Your task to perform on an android device: Open my contact list Image 0: 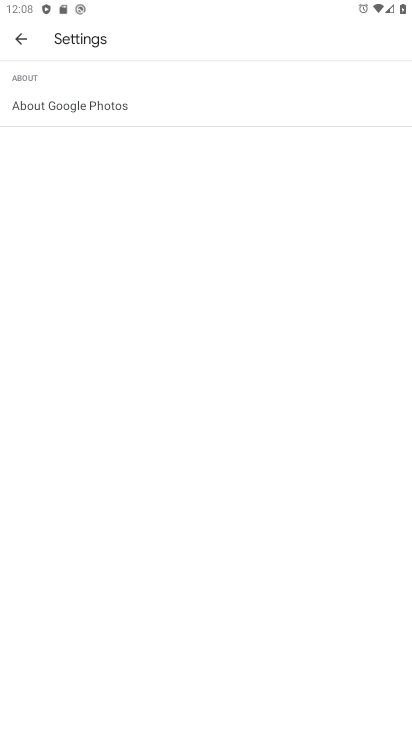
Step 0: press home button
Your task to perform on an android device: Open my contact list Image 1: 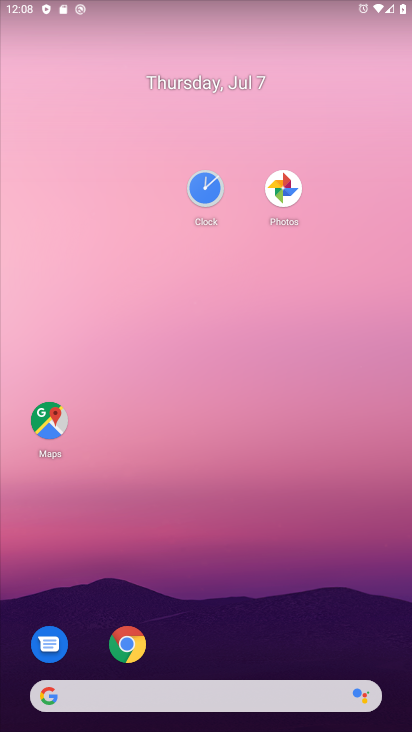
Step 1: drag from (315, 668) to (272, 111)
Your task to perform on an android device: Open my contact list Image 2: 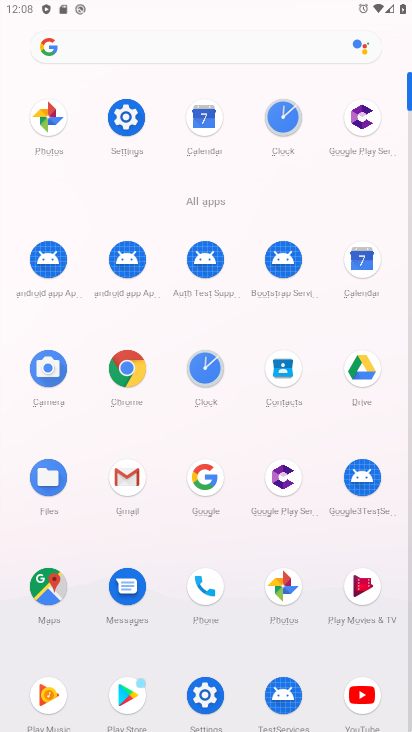
Step 2: click (283, 370)
Your task to perform on an android device: Open my contact list Image 3: 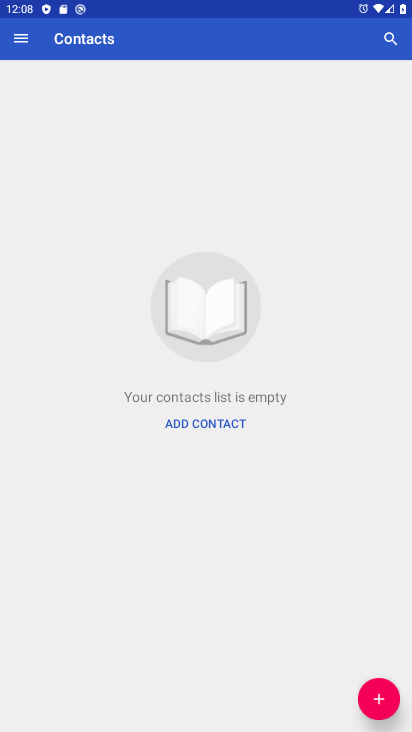
Step 3: click (382, 703)
Your task to perform on an android device: Open my contact list Image 4: 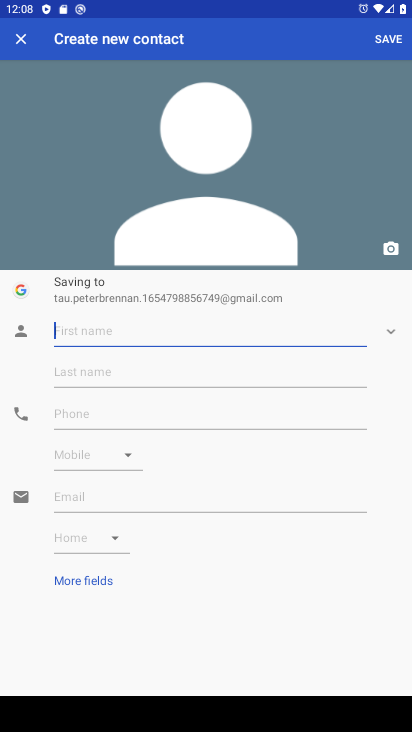
Step 4: type "tipe"
Your task to perform on an android device: Open my contact list Image 5: 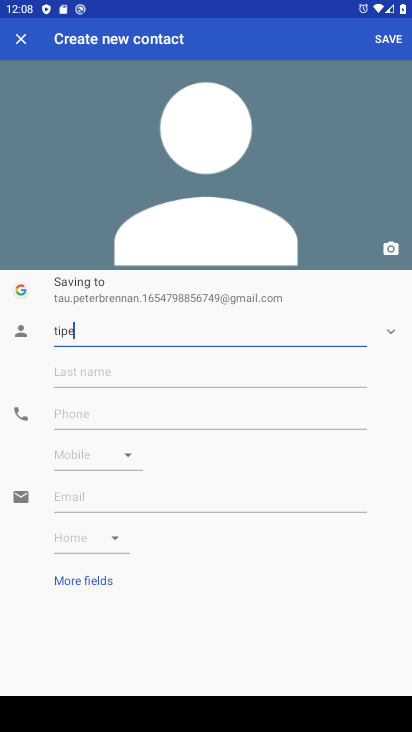
Step 5: click (86, 419)
Your task to perform on an android device: Open my contact list Image 6: 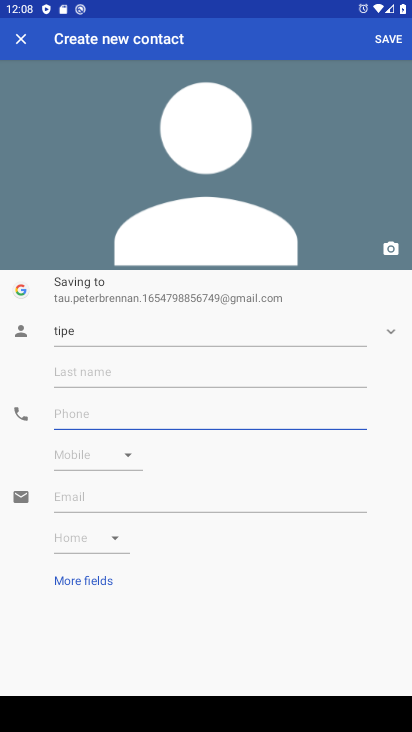
Step 6: type "8890554312"
Your task to perform on an android device: Open my contact list Image 7: 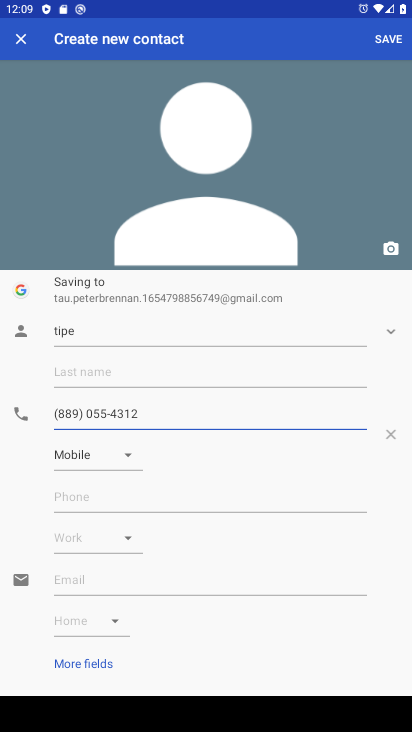
Step 7: click (392, 45)
Your task to perform on an android device: Open my contact list Image 8: 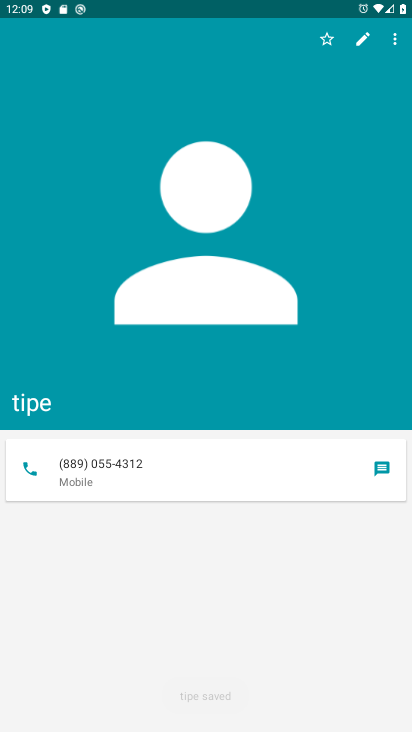
Step 8: task complete